Your task to perform on an android device: open the mobile data screen to see how much data has been used Image 0: 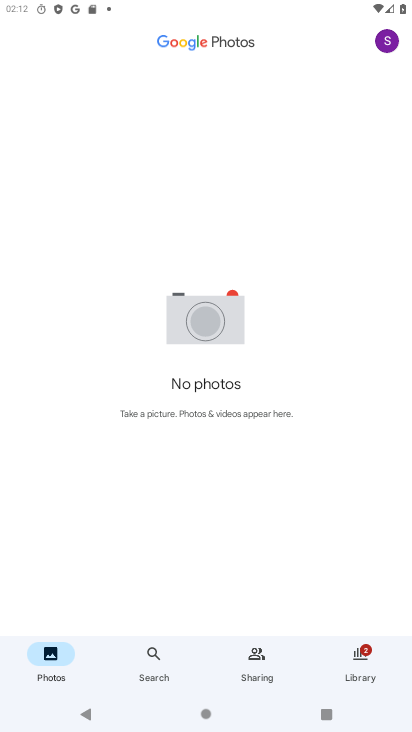
Step 0: click (202, 314)
Your task to perform on an android device: open the mobile data screen to see how much data has been used Image 1: 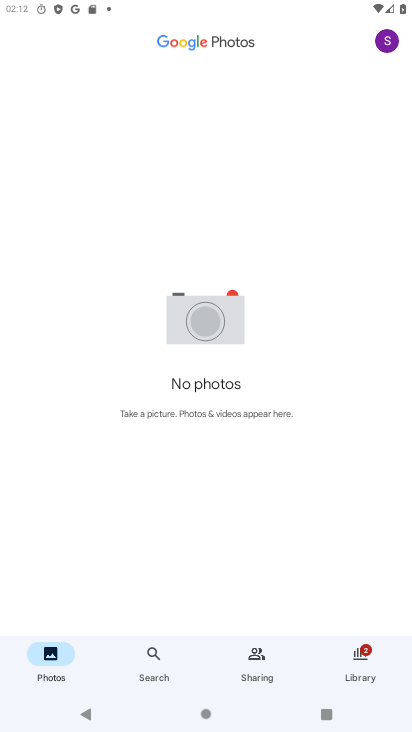
Step 1: press home button
Your task to perform on an android device: open the mobile data screen to see how much data has been used Image 2: 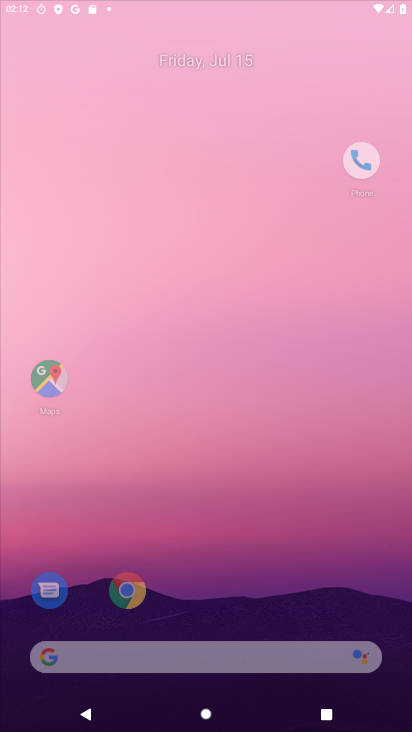
Step 2: drag from (294, 572) to (304, 232)
Your task to perform on an android device: open the mobile data screen to see how much data has been used Image 3: 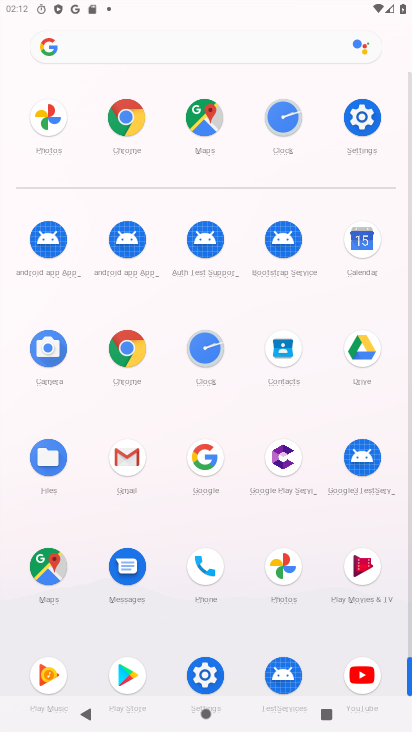
Step 3: click (360, 115)
Your task to perform on an android device: open the mobile data screen to see how much data has been used Image 4: 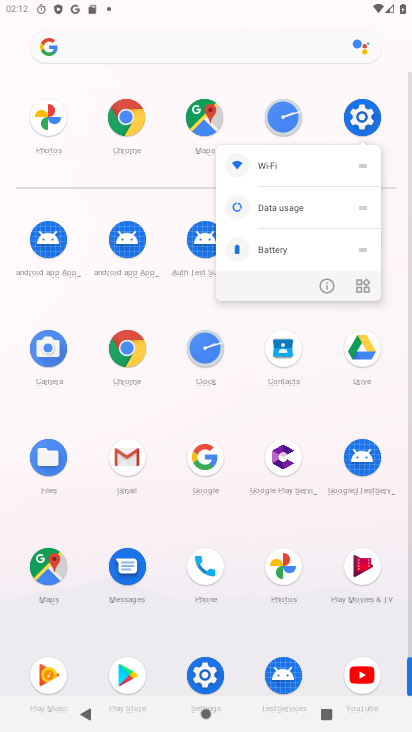
Step 4: click (329, 286)
Your task to perform on an android device: open the mobile data screen to see how much data has been used Image 5: 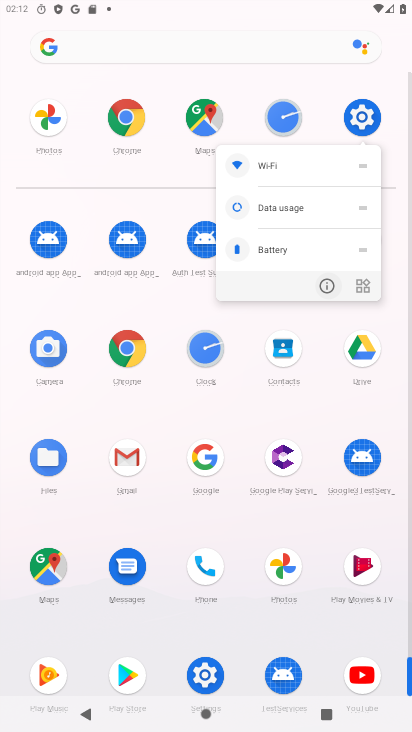
Step 5: click (329, 286)
Your task to perform on an android device: open the mobile data screen to see how much data has been used Image 6: 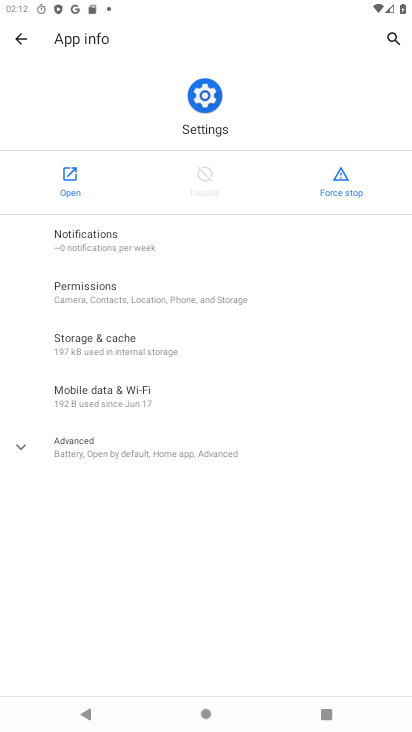
Step 6: click (76, 195)
Your task to perform on an android device: open the mobile data screen to see how much data has been used Image 7: 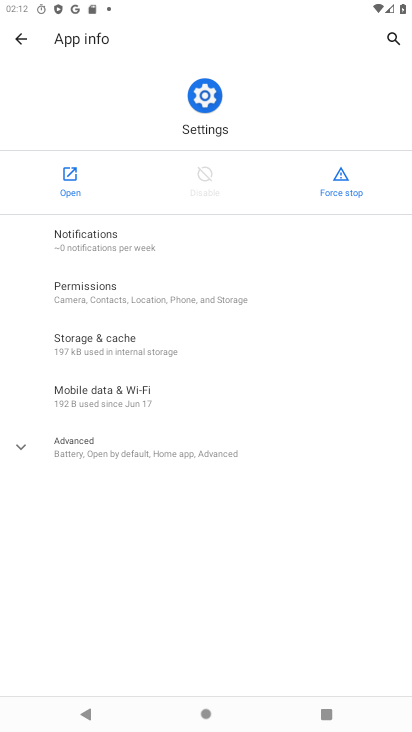
Step 7: click (76, 195)
Your task to perform on an android device: open the mobile data screen to see how much data has been used Image 8: 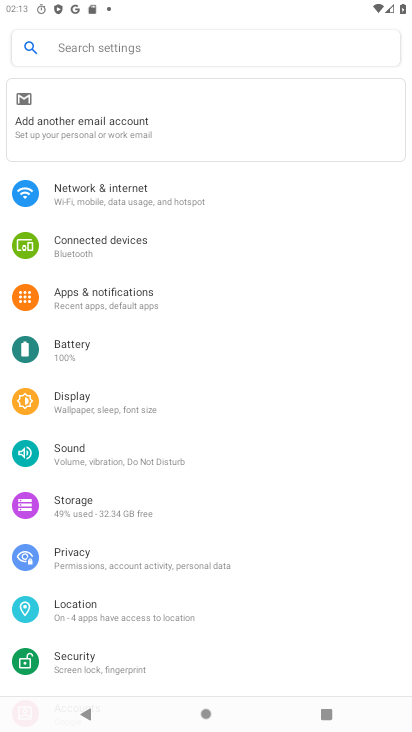
Step 8: click (128, 205)
Your task to perform on an android device: open the mobile data screen to see how much data has been used Image 9: 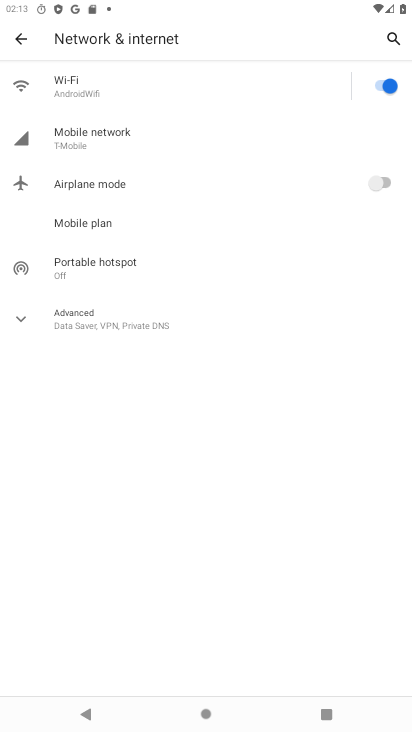
Step 9: click (20, 42)
Your task to perform on an android device: open the mobile data screen to see how much data has been used Image 10: 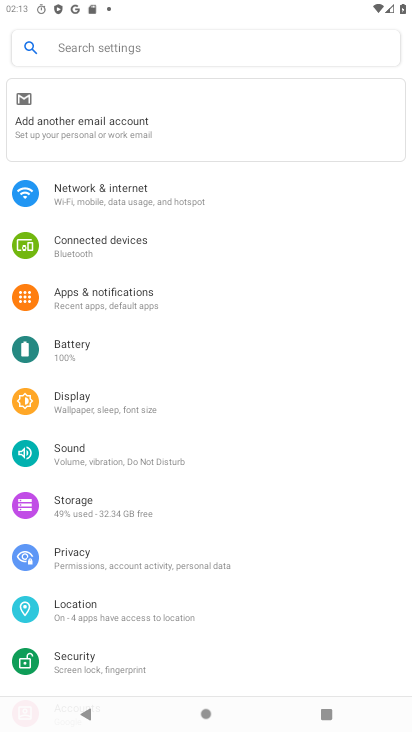
Step 10: click (140, 199)
Your task to perform on an android device: open the mobile data screen to see how much data has been used Image 11: 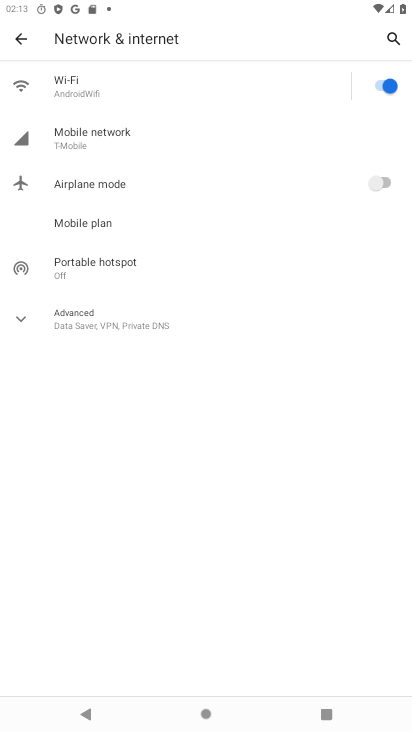
Step 11: click (130, 153)
Your task to perform on an android device: open the mobile data screen to see how much data has been used Image 12: 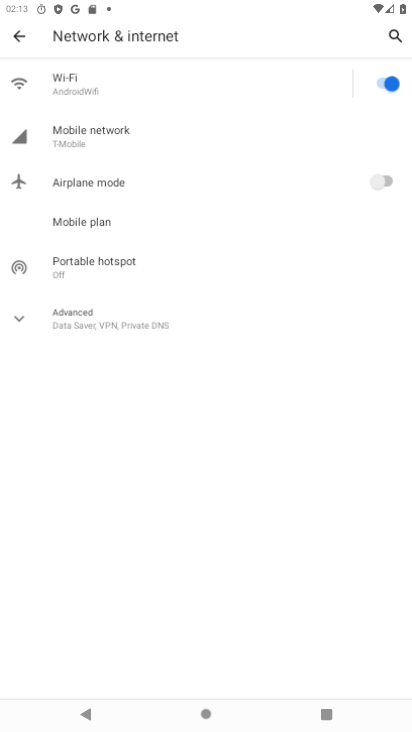
Step 12: task complete